Your task to perform on an android device: check out phone information Image 0: 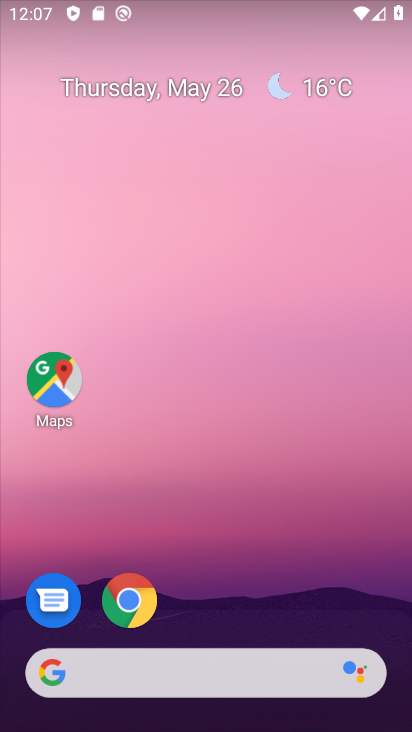
Step 0: drag from (234, 621) to (397, 18)
Your task to perform on an android device: check out phone information Image 1: 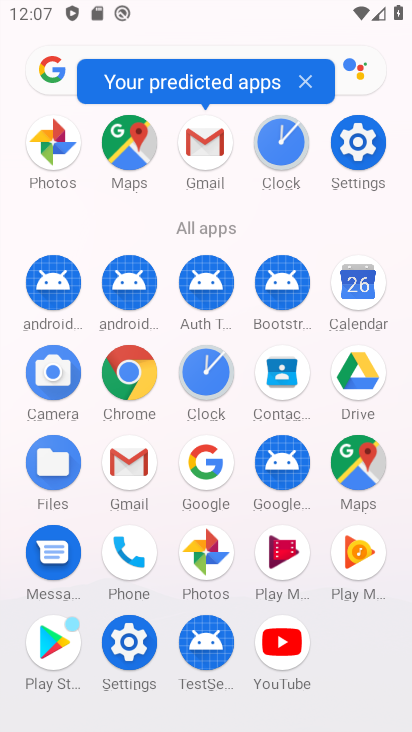
Step 1: click (143, 639)
Your task to perform on an android device: check out phone information Image 2: 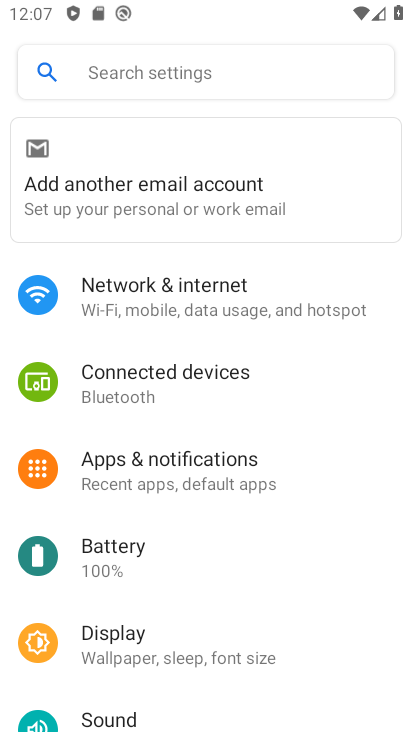
Step 2: drag from (136, 663) to (408, 171)
Your task to perform on an android device: check out phone information Image 3: 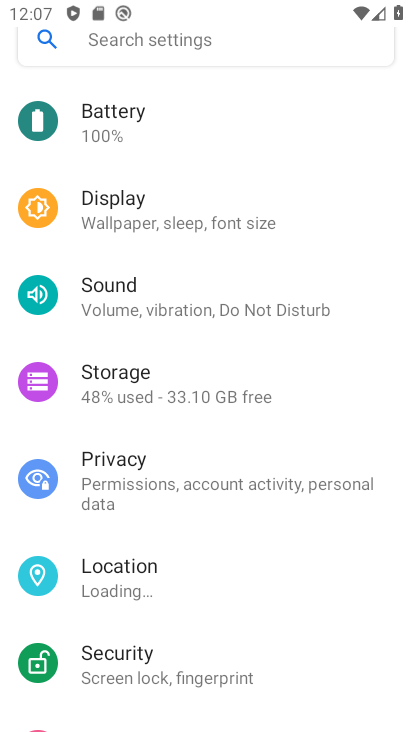
Step 3: drag from (181, 628) to (412, 118)
Your task to perform on an android device: check out phone information Image 4: 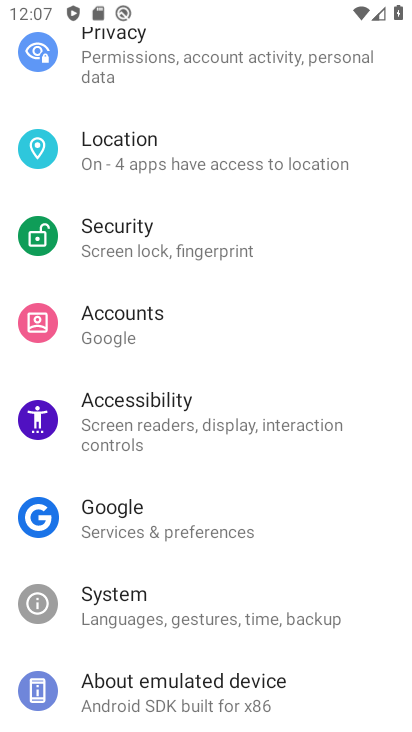
Step 4: drag from (117, 702) to (251, 306)
Your task to perform on an android device: check out phone information Image 5: 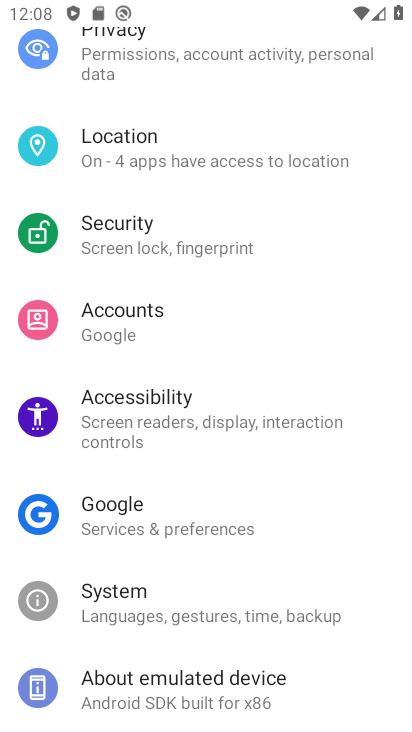
Step 5: click (258, 670)
Your task to perform on an android device: check out phone information Image 6: 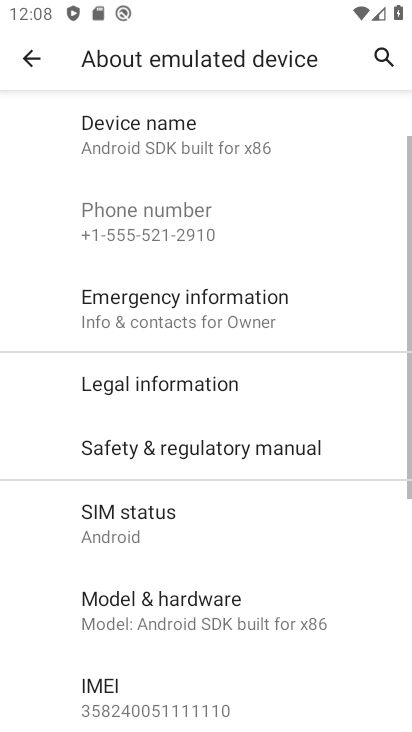
Step 6: task complete